Your task to perform on an android device: toggle priority inbox in the gmail app Image 0: 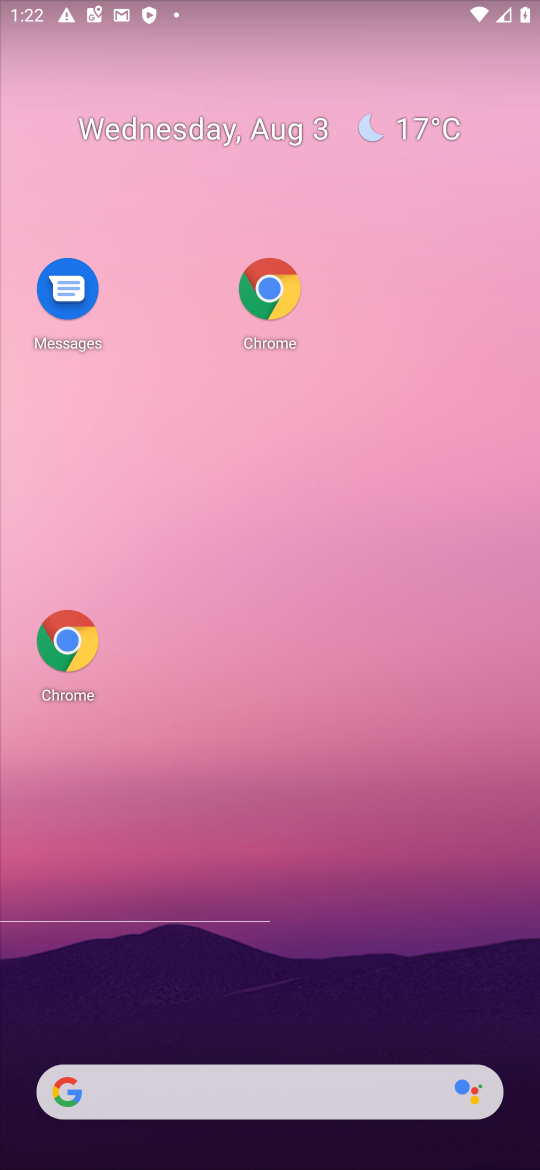
Step 0: click (421, 981)
Your task to perform on an android device: toggle priority inbox in the gmail app Image 1: 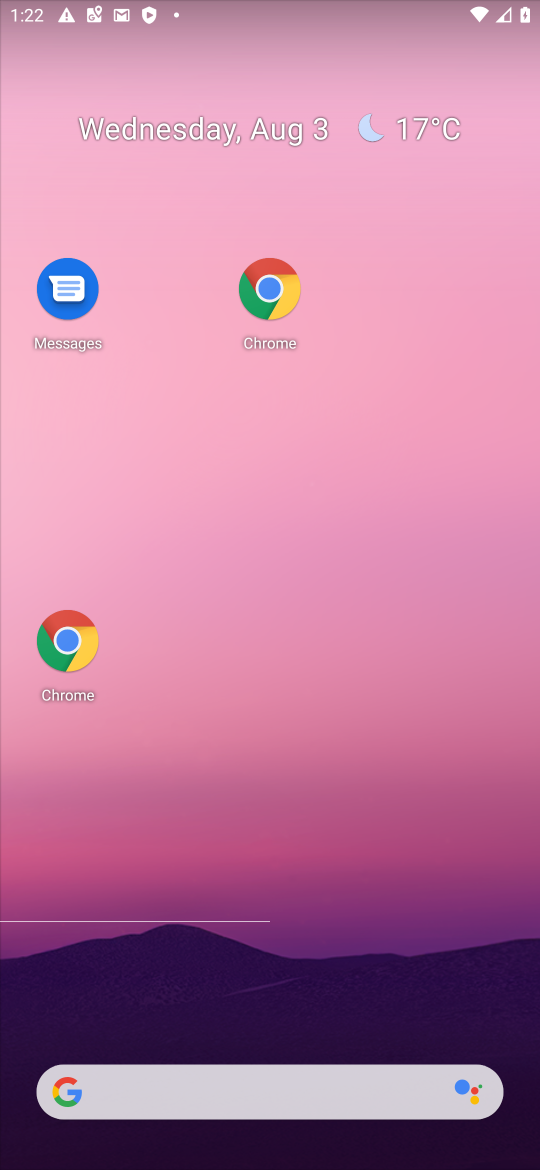
Step 1: drag from (421, 981) to (363, 602)
Your task to perform on an android device: toggle priority inbox in the gmail app Image 2: 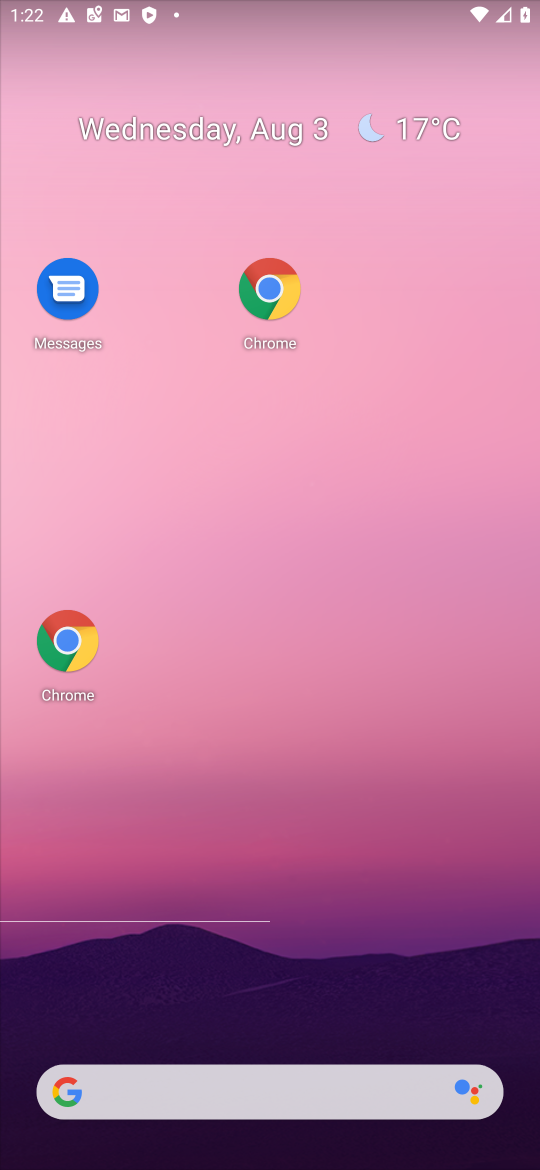
Step 2: drag from (379, 841) to (361, 449)
Your task to perform on an android device: toggle priority inbox in the gmail app Image 3: 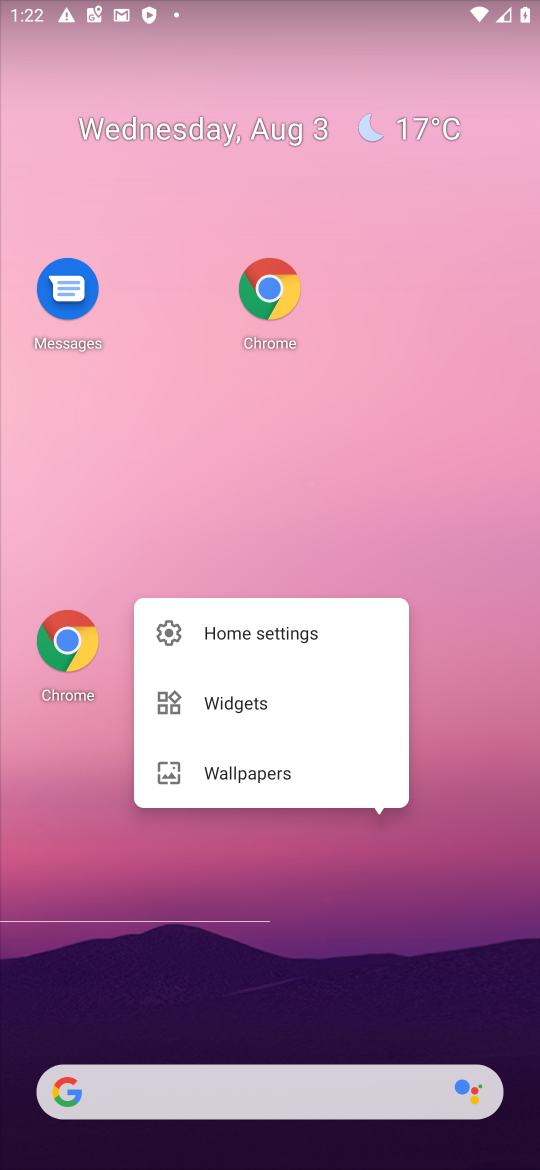
Step 3: click (289, 896)
Your task to perform on an android device: toggle priority inbox in the gmail app Image 4: 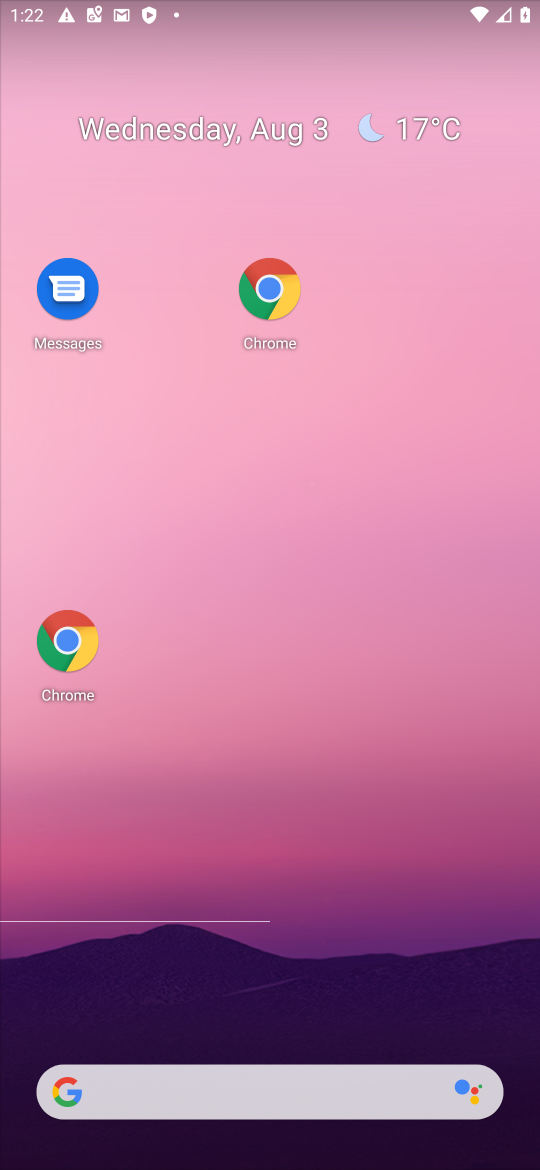
Step 4: drag from (289, 896) to (300, 223)
Your task to perform on an android device: toggle priority inbox in the gmail app Image 5: 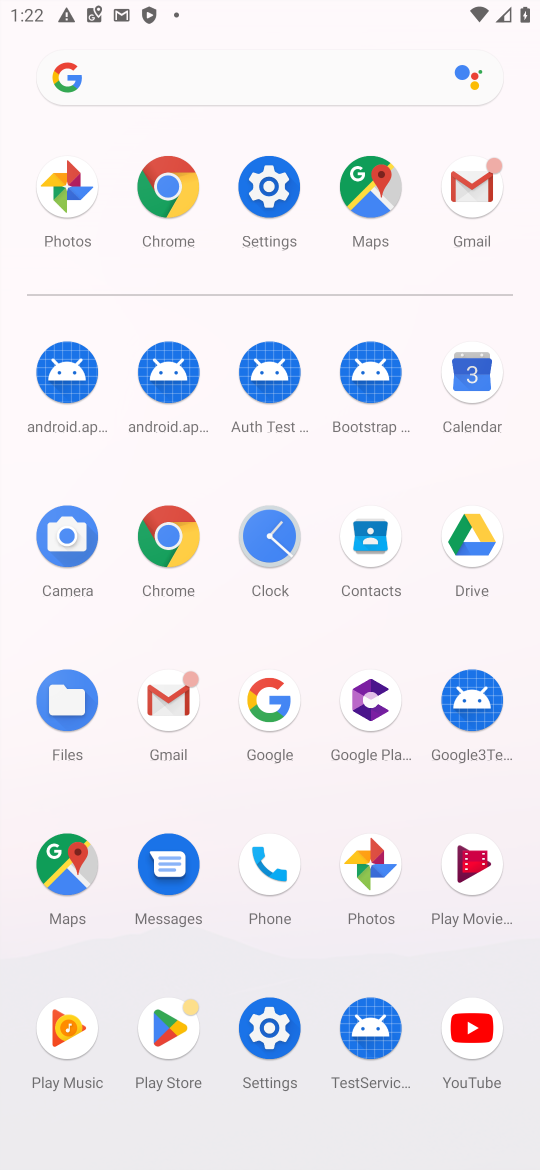
Step 5: click (496, 222)
Your task to perform on an android device: toggle priority inbox in the gmail app Image 6: 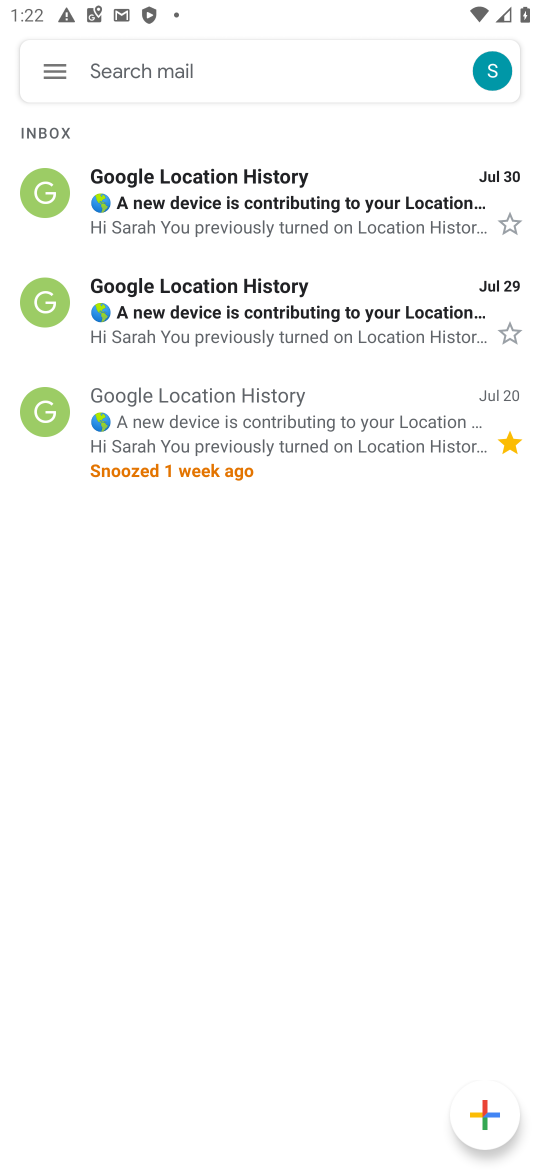
Step 6: click (71, 59)
Your task to perform on an android device: toggle priority inbox in the gmail app Image 7: 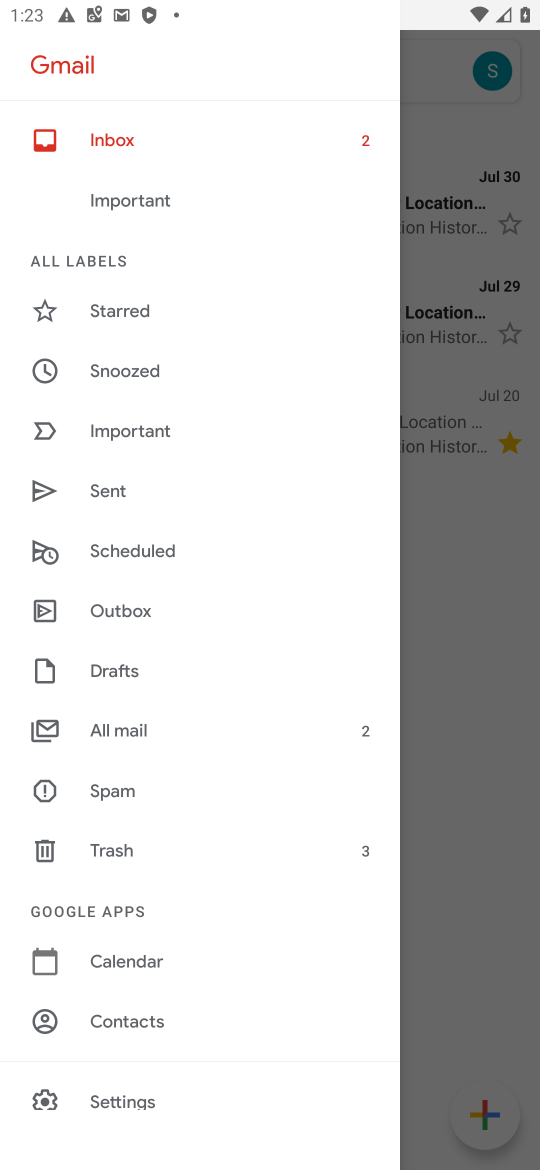
Step 7: click (136, 1103)
Your task to perform on an android device: toggle priority inbox in the gmail app Image 8: 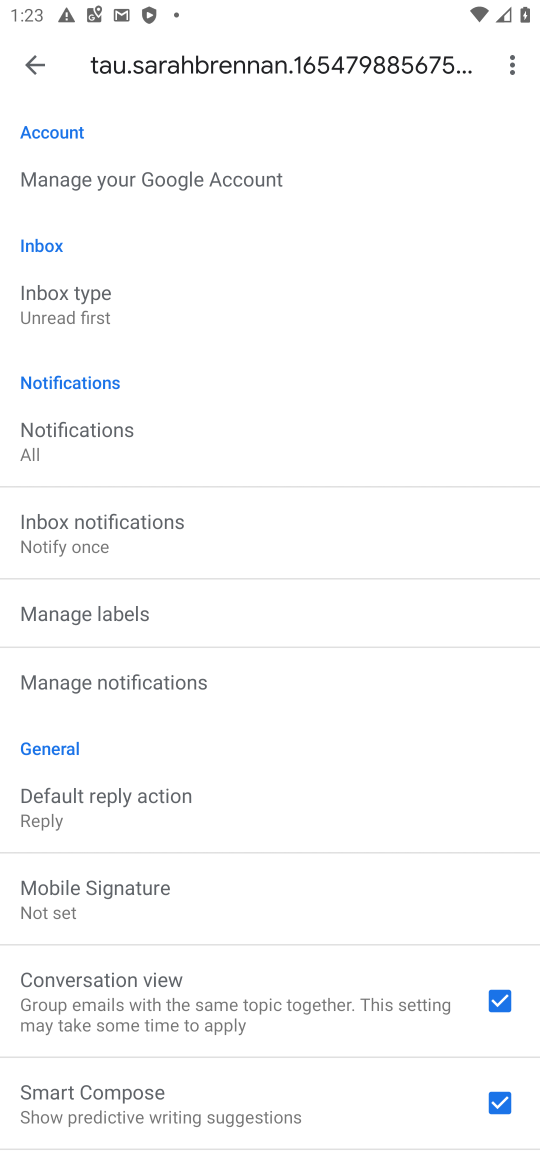
Step 8: task complete